Your task to perform on an android device: Open calendar and show me the third week of next month Image 0: 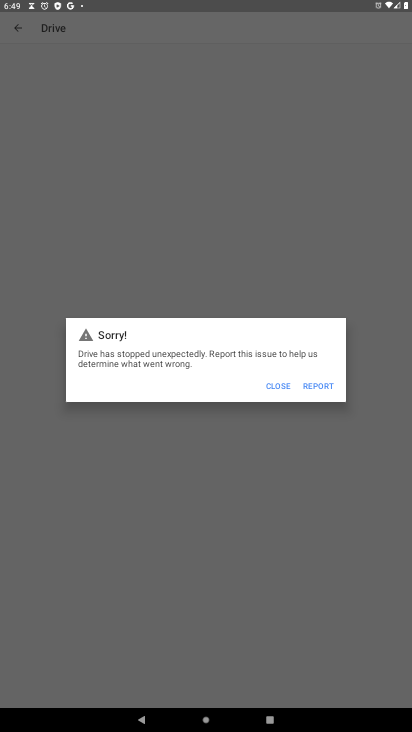
Step 0: press home button
Your task to perform on an android device: Open calendar and show me the third week of next month Image 1: 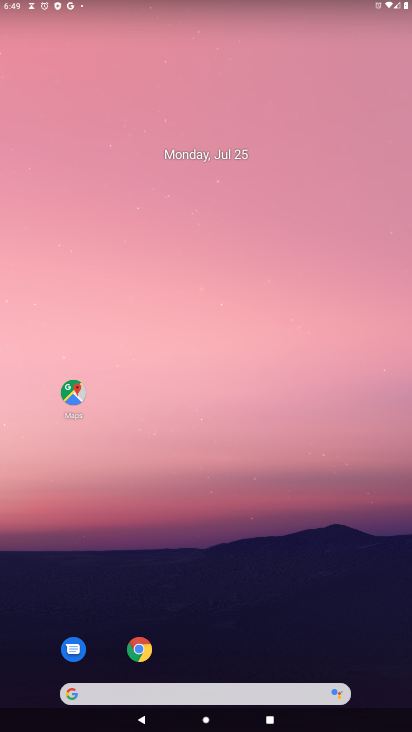
Step 1: drag from (157, 580) to (198, 40)
Your task to perform on an android device: Open calendar and show me the third week of next month Image 2: 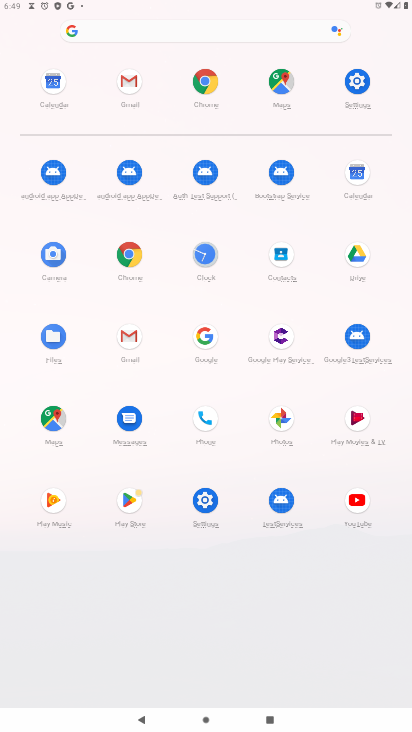
Step 2: click (354, 187)
Your task to perform on an android device: Open calendar and show me the third week of next month Image 3: 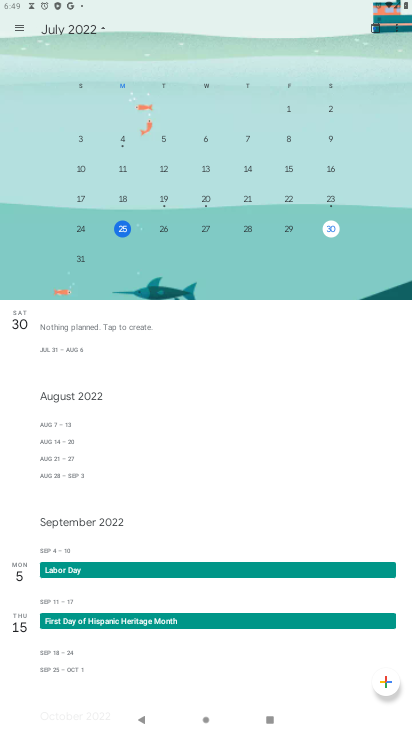
Step 3: click (98, 26)
Your task to perform on an android device: Open calendar and show me the third week of next month Image 4: 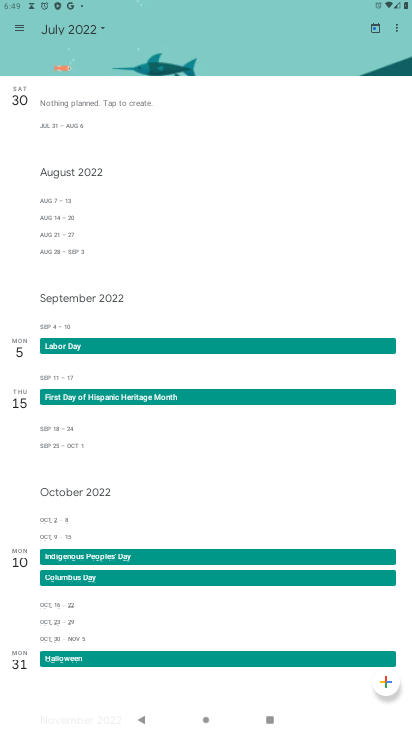
Step 4: click (96, 31)
Your task to perform on an android device: Open calendar and show me the third week of next month Image 5: 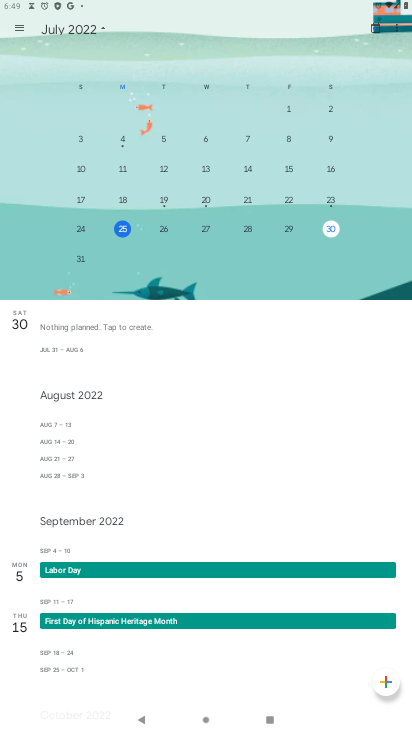
Step 5: drag from (224, 175) to (5, 142)
Your task to perform on an android device: Open calendar and show me the third week of next month Image 6: 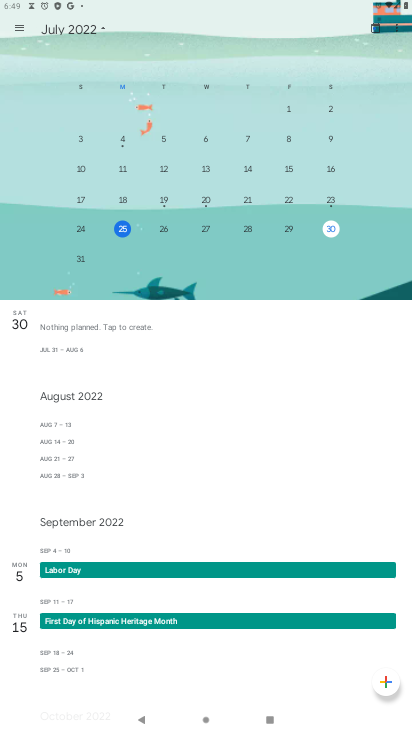
Step 6: drag from (364, 196) to (13, 238)
Your task to perform on an android device: Open calendar and show me the third week of next month Image 7: 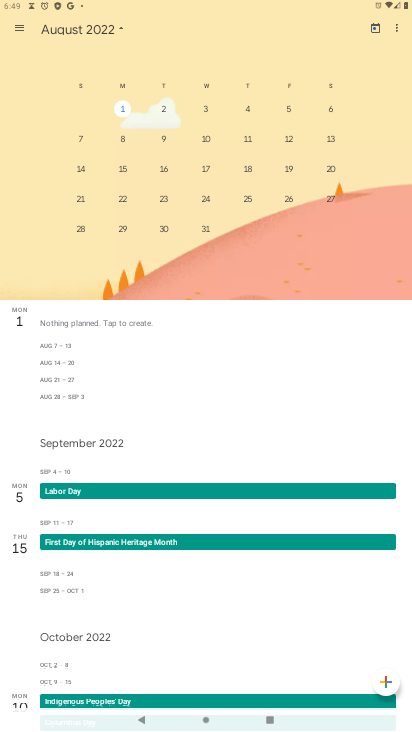
Step 7: click (196, 172)
Your task to perform on an android device: Open calendar and show me the third week of next month Image 8: 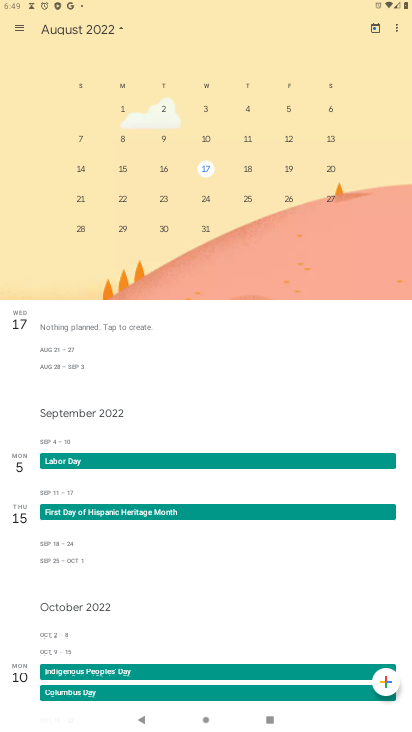
Step 8: task complete